Your task to perform on an android device: turn on the 24-hour format for clock Image 0: 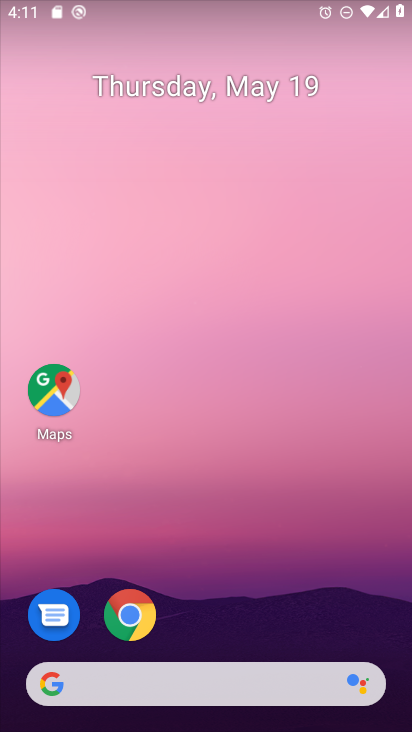
Step 0: drag from (216, 617) to (240, 97)
Your task to perform on an android device: turn on the 24-hour format for clock Image 1: 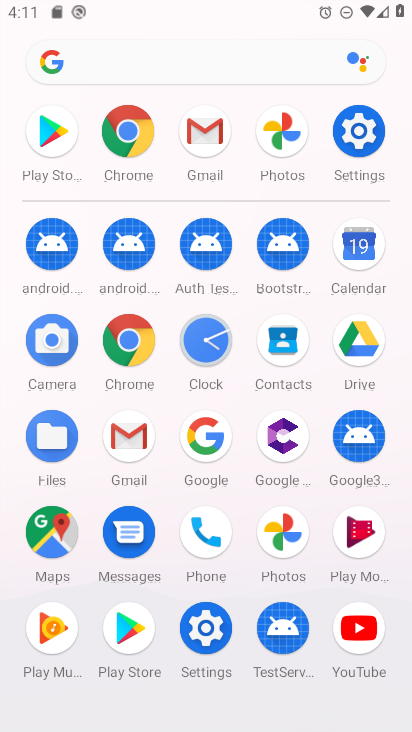
Step 1: click (215, 325)
Your task to perform on an android device: turn on the 24-hour format for clock Image 2: 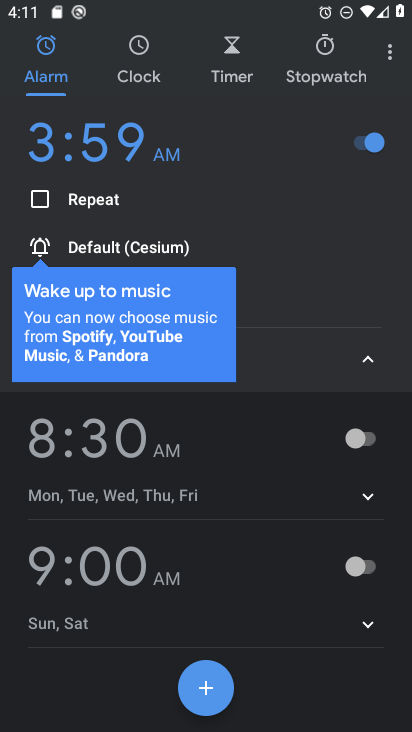
Step 2: click (382, 52)
Your task to perform on an android device: turn on the 24-hour format for clock Image 3: 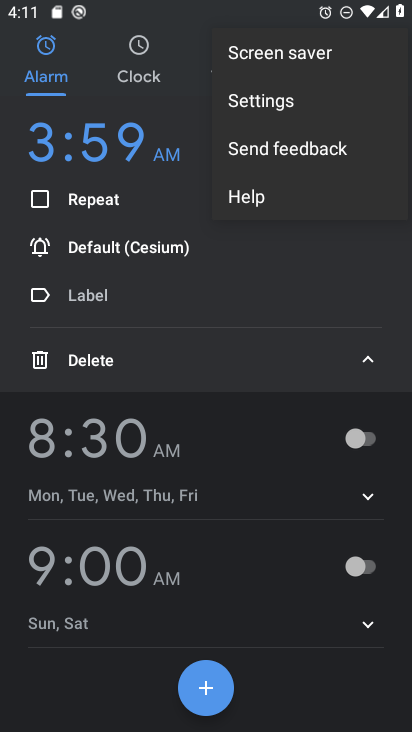
Step 3: click (324, 100)
Your task to perform on an android device: turn on the 24-hour format for clock Image 4: 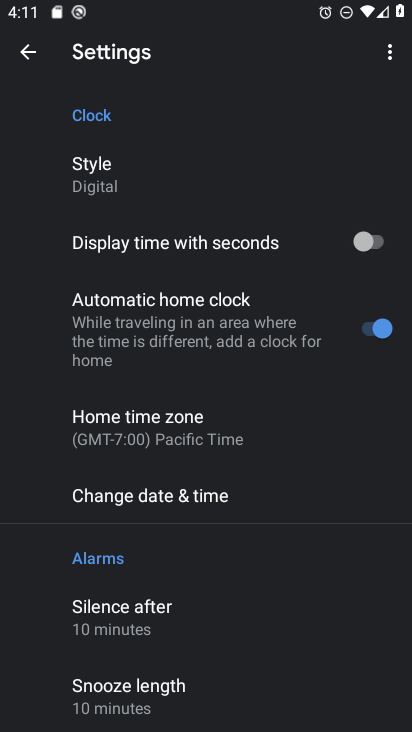
Step 4: click (265, 501)
Your task to perform on an android device: turn on the 24-hour format for clock Image 5: 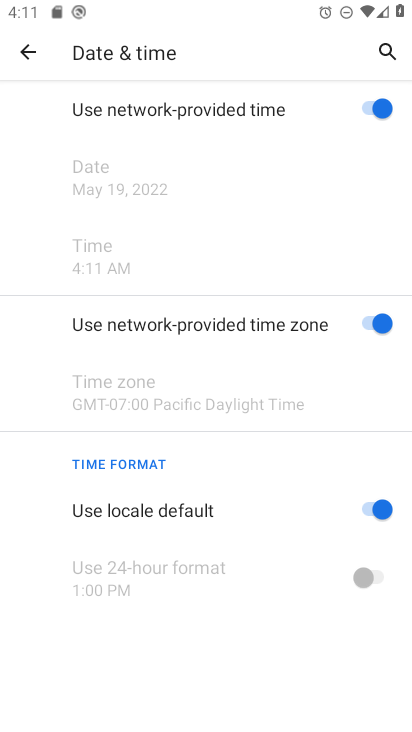
Step 5: click (381, 506)
Your task to perform on an android device: turn on the 24-hour format for clock Image 6: 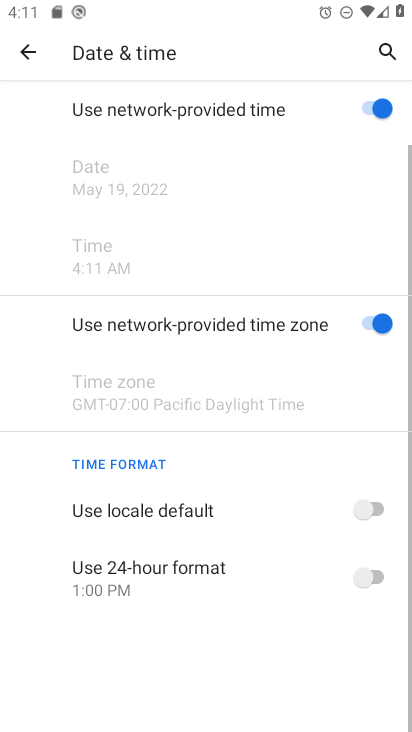
Step 6: click (380, 564)
Your task to perform on an android device: turn on the 24-hour format for clock Image 7: 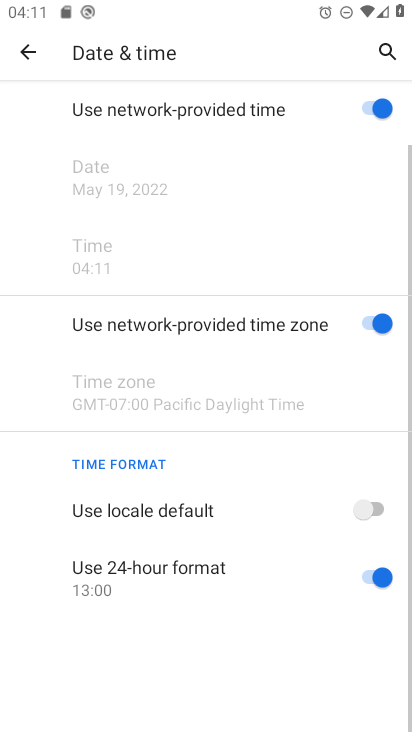
Step 7: task complete